Your task to perform on an android device: star an email in the gmail app Image 0: 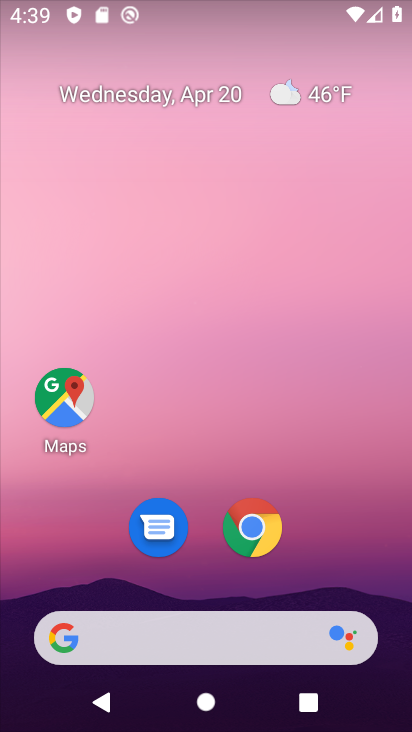
Step 0: drag from (218, 576) to (159, 44)
Your task to perform on an android device: star an email in the gmail app Image 1: 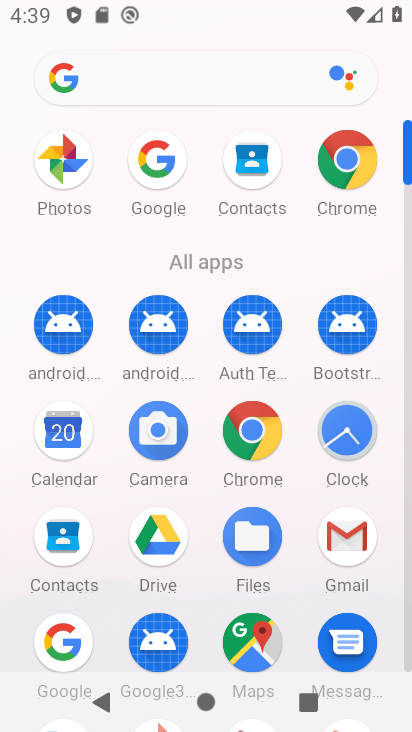
Step 1: click (342, 531)
Your task to perform on an android device: star an email in the gmail app Image 2: 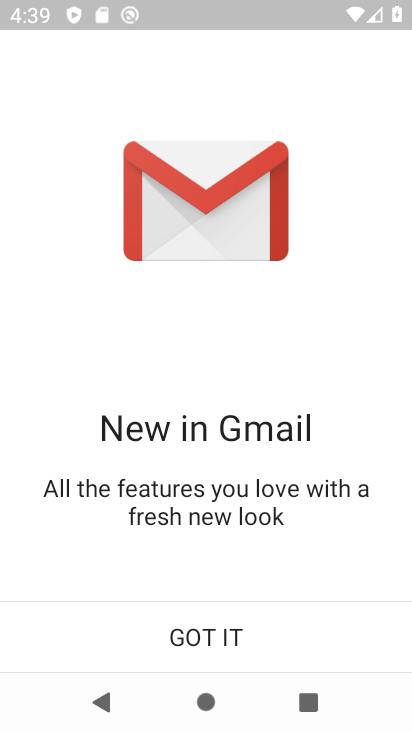
Step 2: click (208, 636)
Your task to perform on an android device: star an email in the gmail app Image 3: 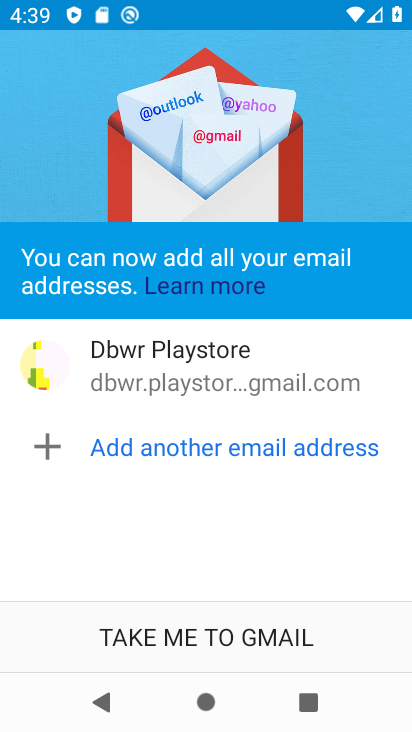
Step 3: click (198, 629)
Your task to perform on an android device: star an email in the gmail app Image 4: 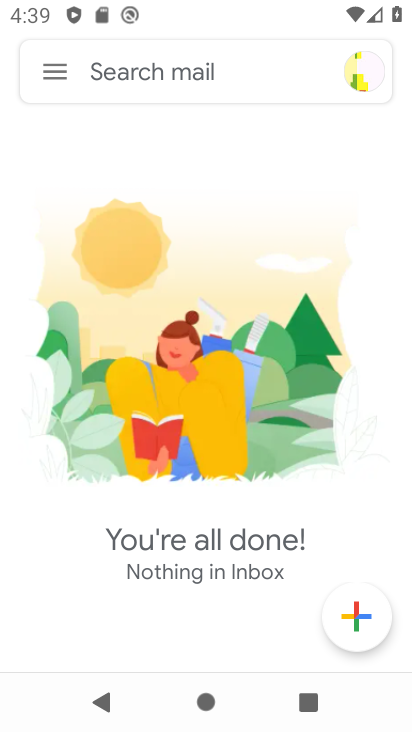
Step 4: click (56, 62)
Your task to perform on an android device: star an email in the gmail app Image 5: 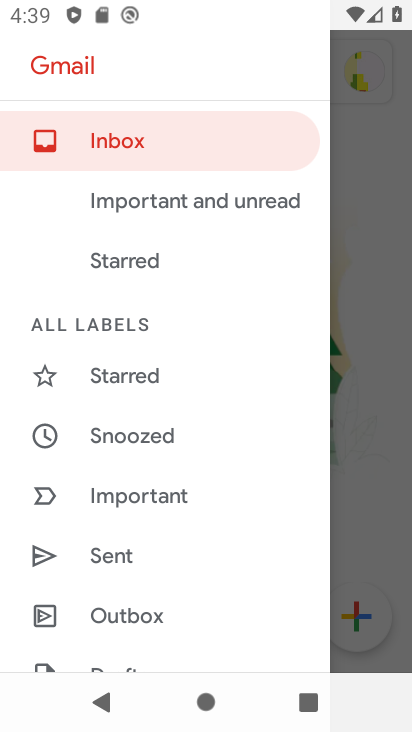
Step 5: drag from (149, 608) to (156, 193)
Your task to perform on an android device: star an email in the gmail app Image 6: 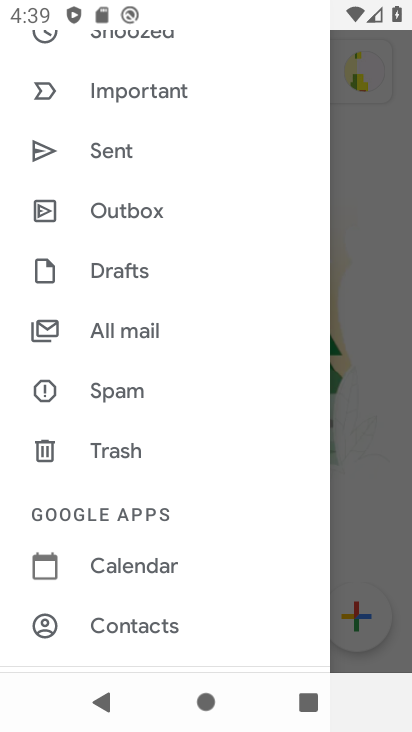
Step 6: click (159, 339)
Your task to perform on an android device: star an email in the gmail app Image 7: 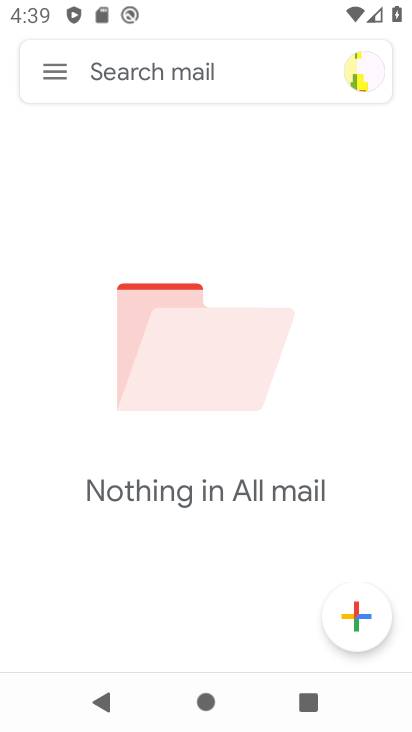
Step 7: task complete